Your task to perform on an android device: Add "usb-a to usb-b" to the cart on target Image 0: 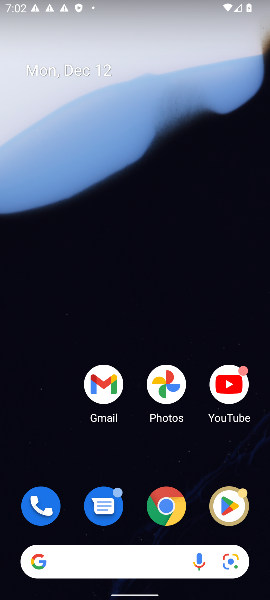
Step 0: click (156, 561)
Your task to perform on an android device: Add "usb-a to usb-b" to the cart on target Image 1: 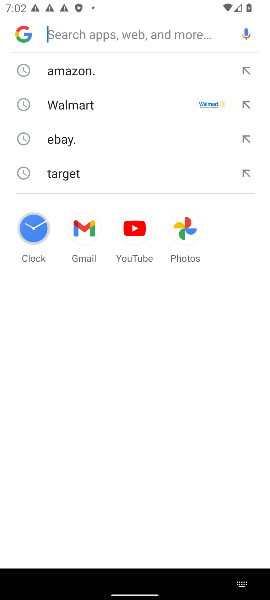
Step 1: click (130, 183)
Your task to perform on an android device: Add "usb-a to usb-b" to the cart on target Image 2: 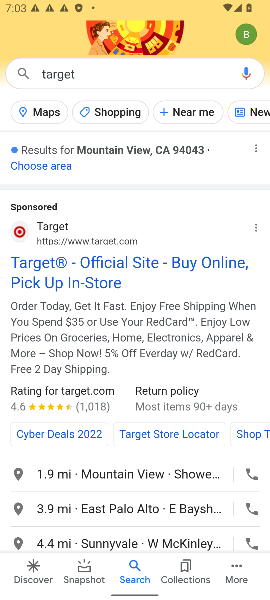
Step 2: click (151, 274)
Your task to perform on an android device: Add "usb-a to usb-b" to the cart on target Image 3: 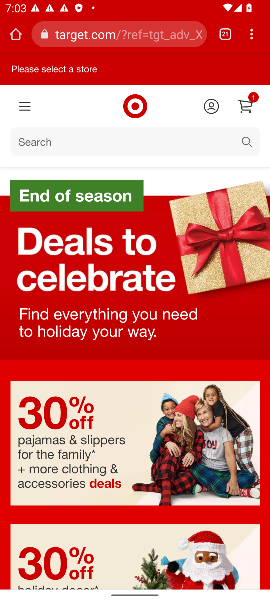
Step 3: click (108, 152)
Your task to perform on an android device: Add "usb-a to usb-b" to the cart on target Image 4: 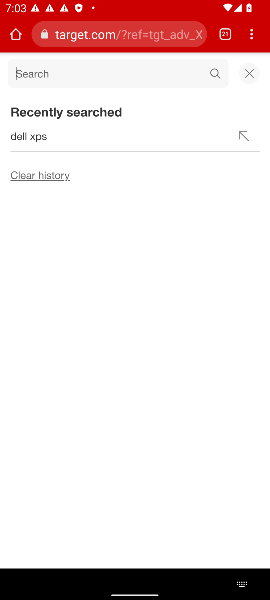
Step 4: type "usb-a to usb-b"
Your task to perform on an android device: Add "usb-a to usb-b" to the cart on target Image 5: 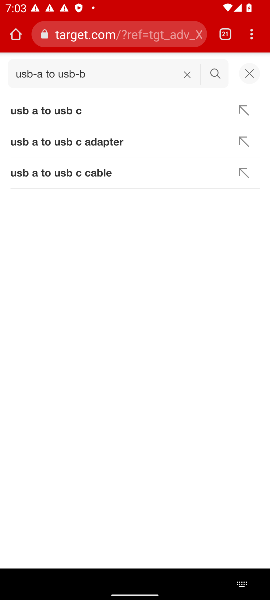
Step 5: click (213, 81)
Your task to perform on an android device: Add "usb-a to usb-b" to the cart on target Image 6: 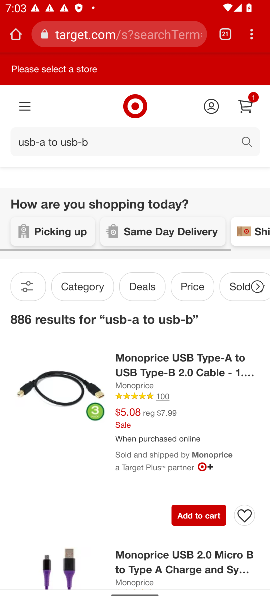
Step 6: click (199, 510)
Your task to perform on an android device: Add "usb-a to usb-b" to the cart on target Image 7: 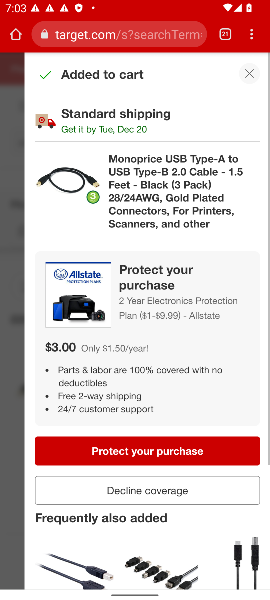
Step 7: click (160, 488)
Your task to perform on an android device: Add "usb-a to usb-b" to the cart on target Image 8: 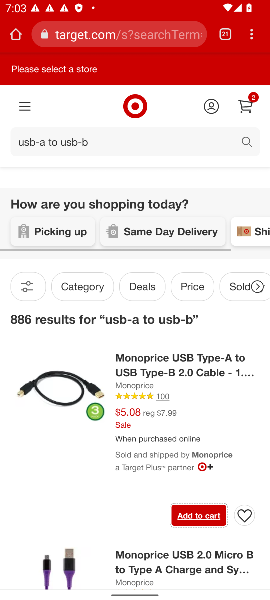
Step 8: click (205, 512)
Your task to perform on an android device: Add "usb-a to usb-b" to the cart on target Image 9: 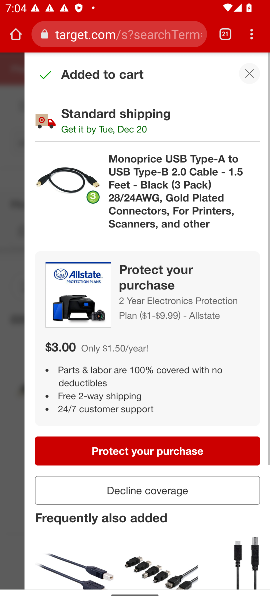
Step 9: task complete